Your task to perform on an android device: search for starred emails in the gmail app Image 0: 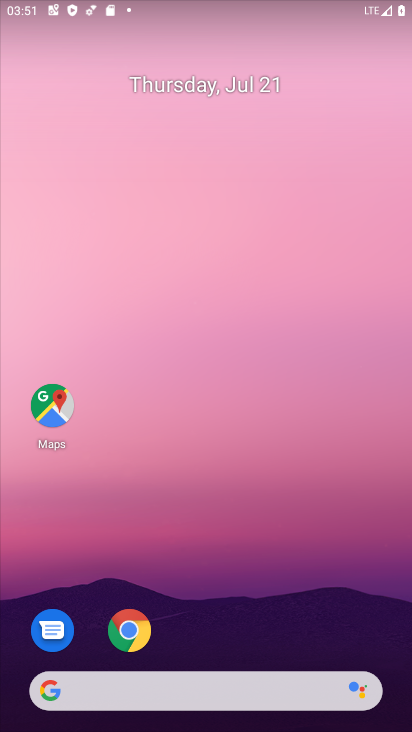
Step 0: drag from (214, 637) to (234, 333)
Your task to perform on an android device: search for starred emails in the gmail app Image 1: 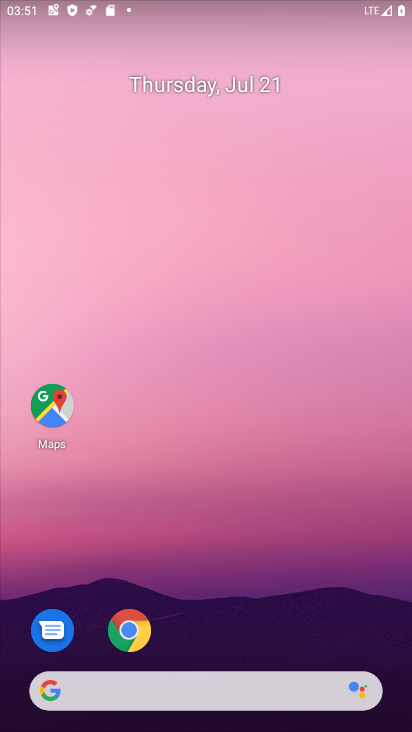
Step 1: drag from (243, 649) to (299, 5)
Your task to perform on an android device: search for starred emails in the gmail app Image 2: 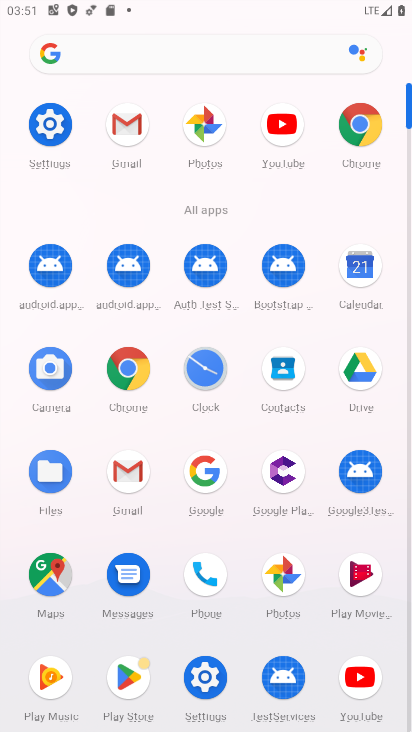
Step 2: click (118, 121)
Your task to perform on an android device: search for starred emails in the gmail app Image 3: 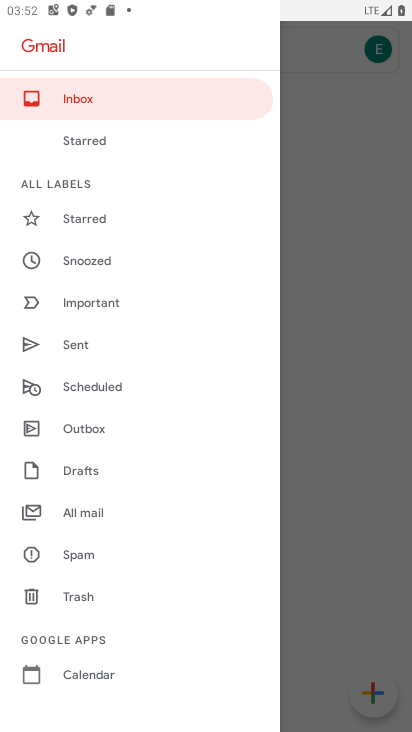
Step 3: click (94, 132)
Your task to perform on an android device: search for starred emails in the gmail app Image 4: 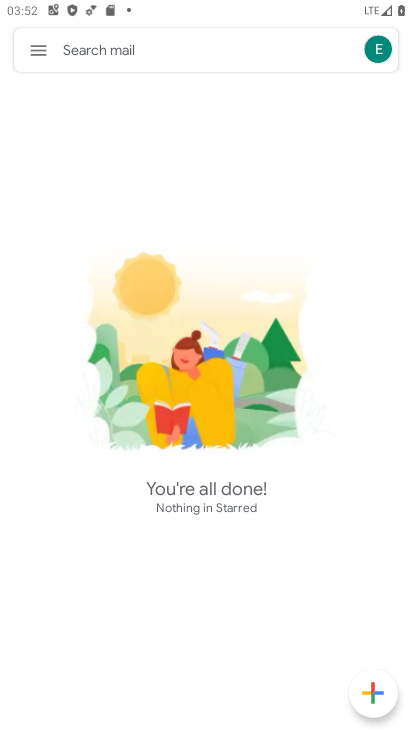
Step 4: task complete